Your task to perform on an android device: change the clock display to analog Image 0: 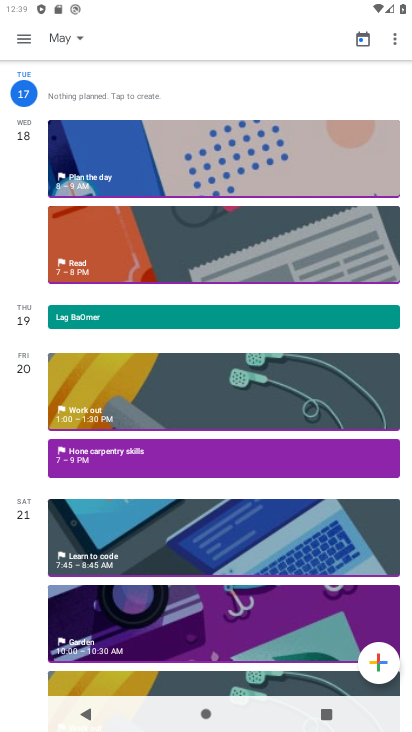
Step 0: press home button
Your task to perform on an android device: change the clock display to analog Image 1: 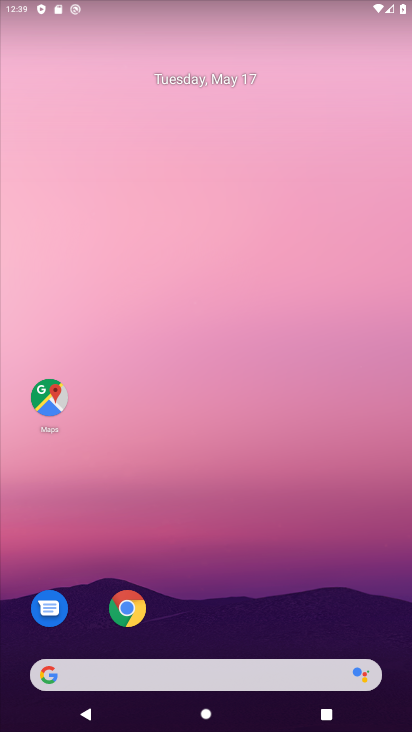
Step 1: drag from (224, 618) to (225, 144)
Your task to perform on an android device: change the clock display to analog Image 2: 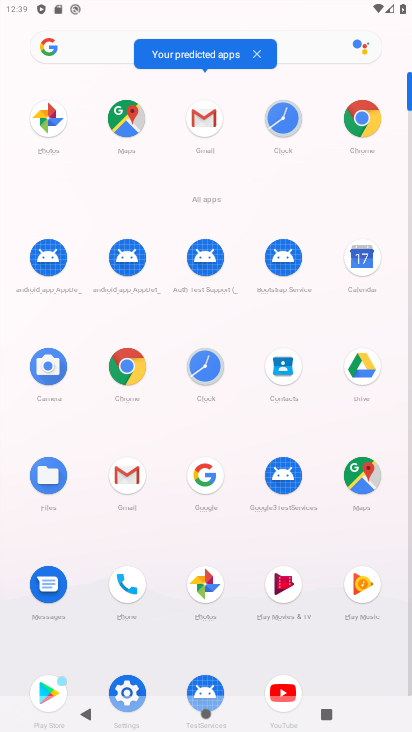
Step 2: click (195, 372)
Your task to perform on an android device: change the clock display to analog Image 3: 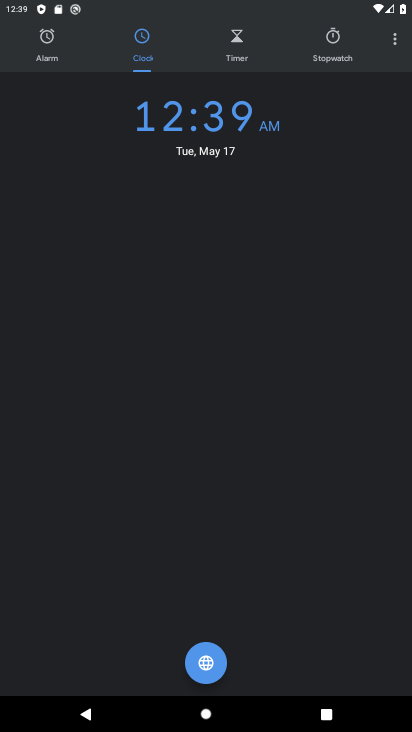
Step 3: click (398, 48)
Your task to perform on an android device: change the clock display to analog Image 4: 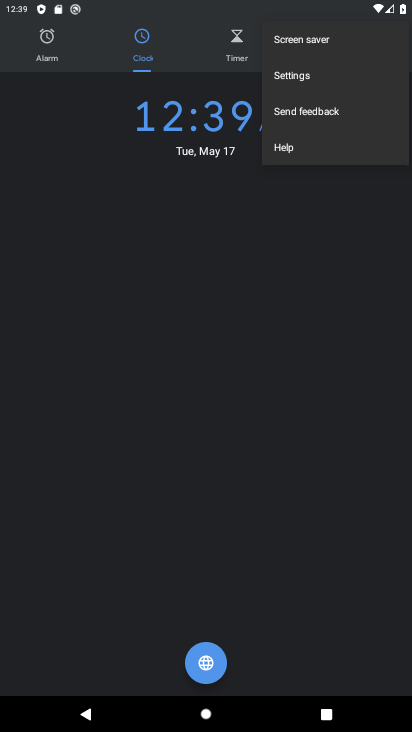
Step 4: click (297, 84)
Your task to perform on an android device: change the clock display to analog Image 5: 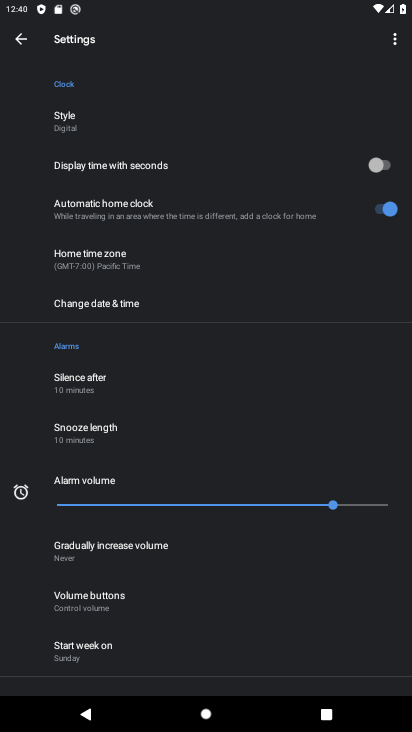
Step 5: click (84, 134)
Your task to perform on an android device: change the clock display to analog Image 6: 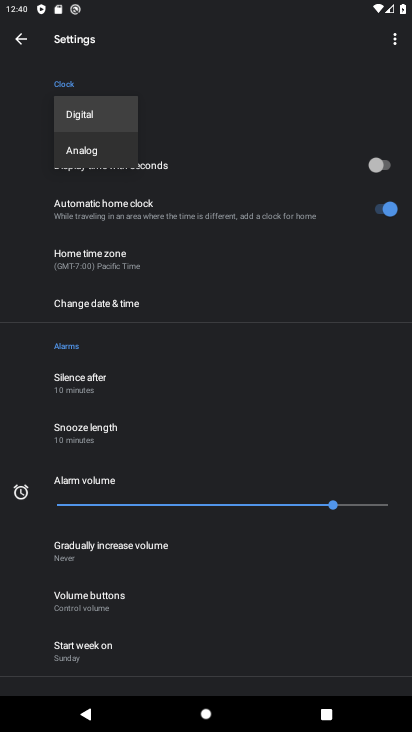
Step 6: click (94, 156)
Your task to perform on an android device: change the clock display to analog Image 7: 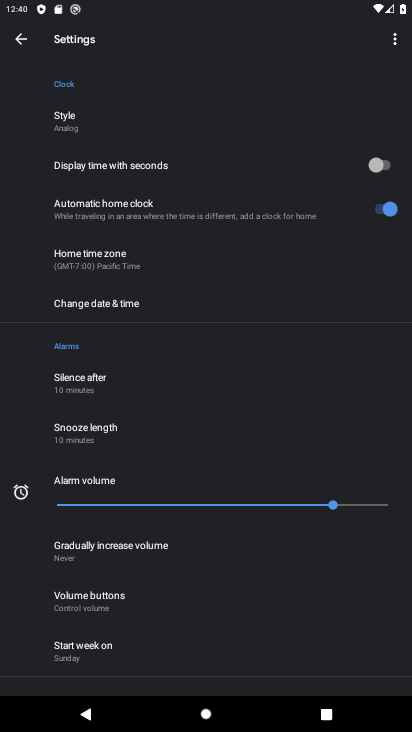
Step 7: task complete